Your task to perform on an android device: open wifi settings Image 0: 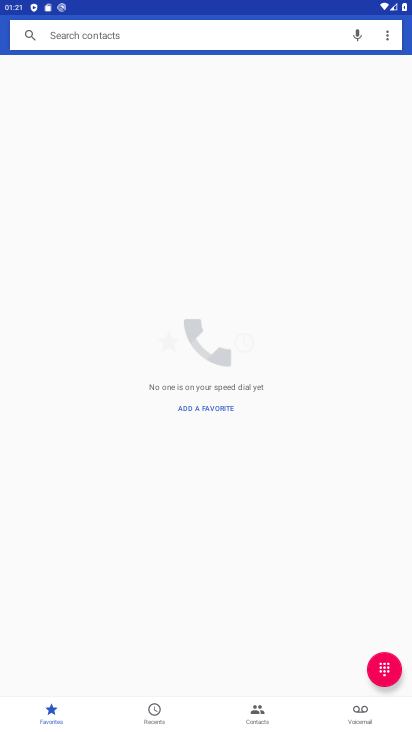
Step 0: press home button
Your task to perform on an android device: open wifi settings Image 1: 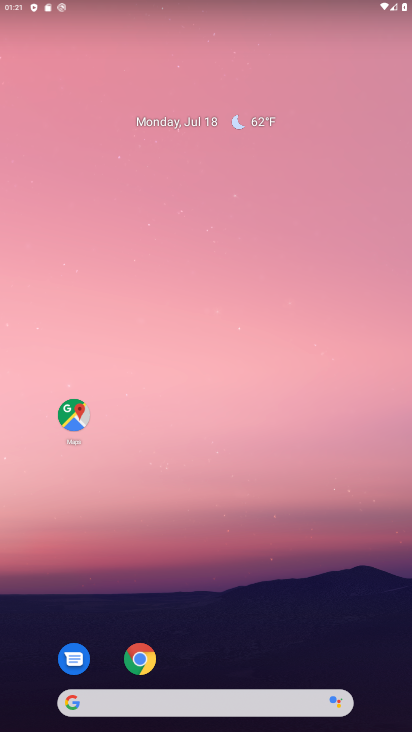
Step 1: drag from (334, 659) to (283, 125)
Your task to perform on an android device: open wifi settings Image 2: 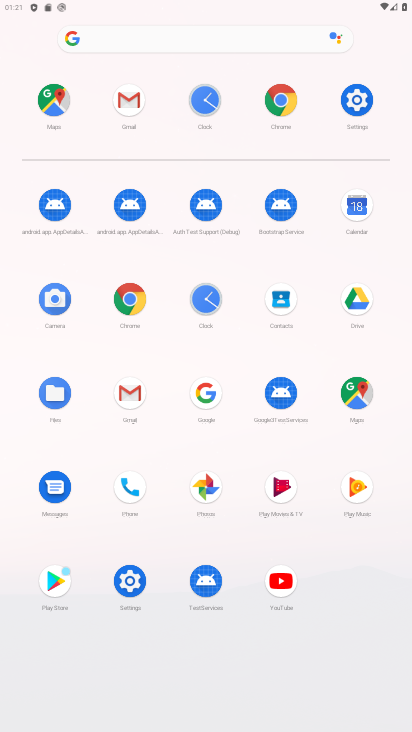
Step 2: click (344, 102)
Your task to perform on an android device: open wifi settings Image 3: 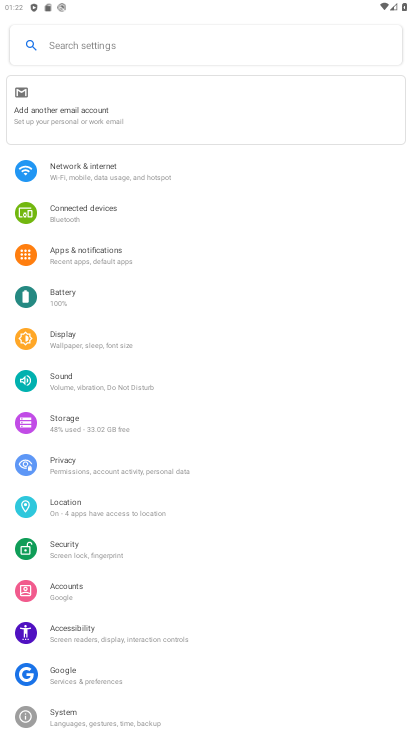
Step 3: click (90, 180)
Your task to perform on an android device: open wifi settings Image 4: 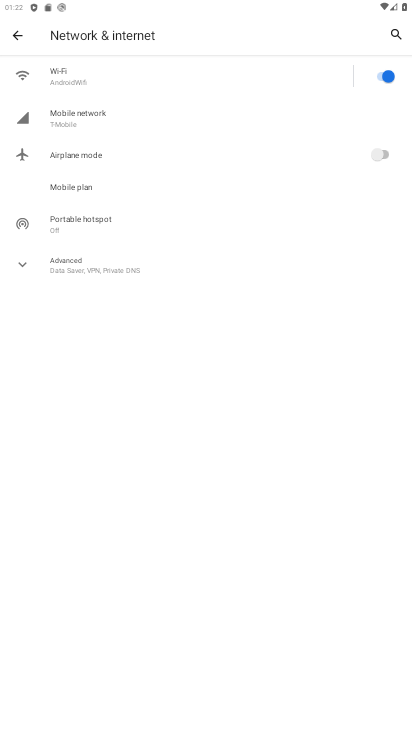
Step 4: click (209, 84)
Your task to perform on an android device: open wifi settings Image 5: 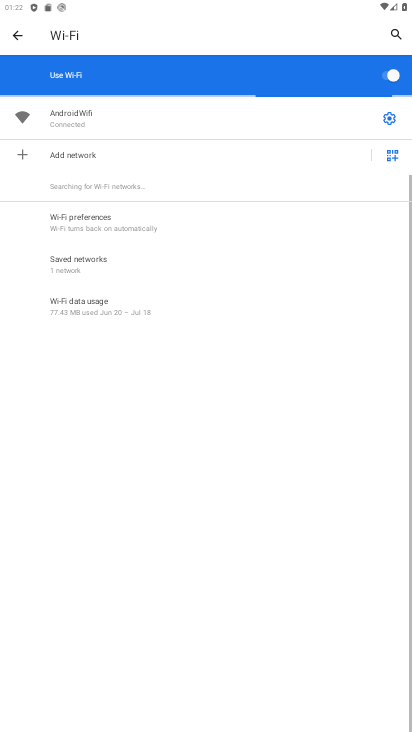
Step 5: click (392, 118)
Your task to perform on an android device: open wifi settings Image 6: 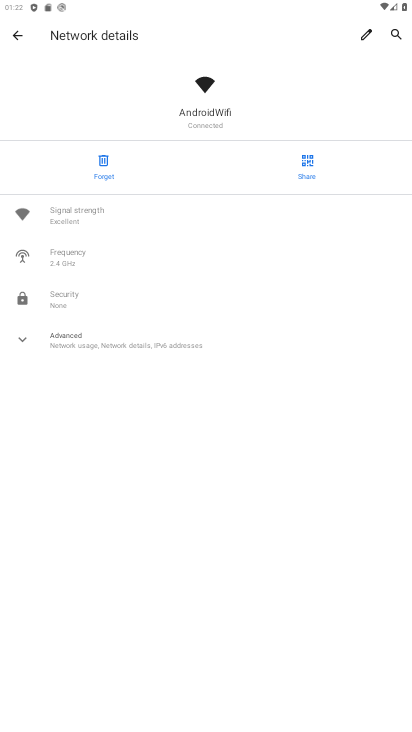
Step 6: task complete